Your task to perform on an android device: Open my contact list Image 0: 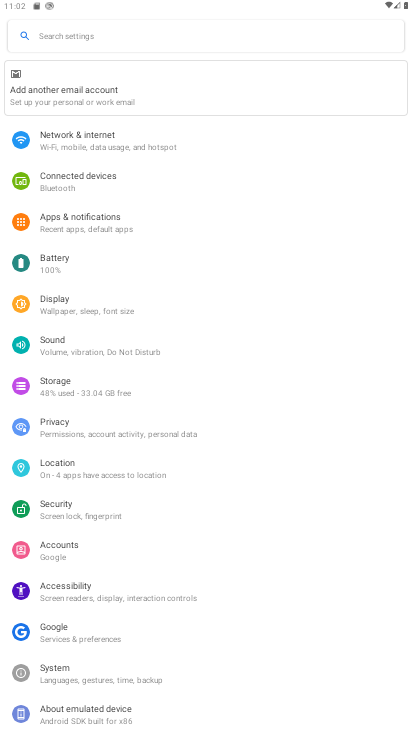
Step 0: press home button
Your task to perform on an android device: Open my contact list Image 1: 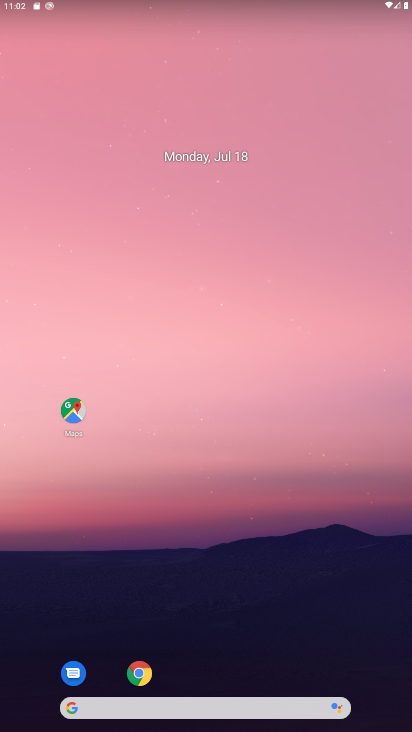
Step 1: drag from (198, 618) to (198, 197)
Your task to perform on an android device: Open my contact list Image 2: 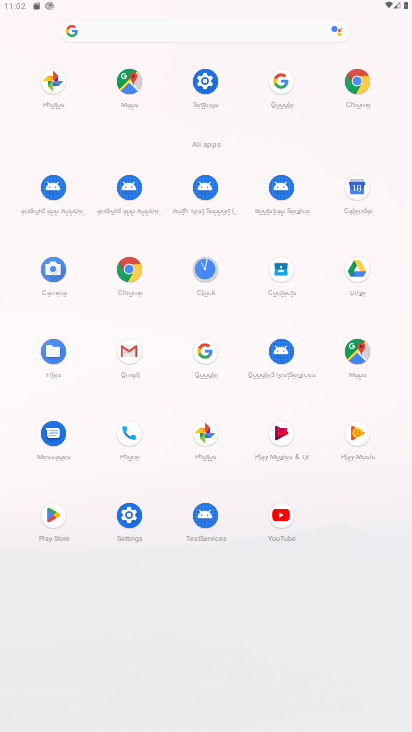
Step 2: click (279, 286)
Your task to perform on an android device: Open my contact list Image 3: 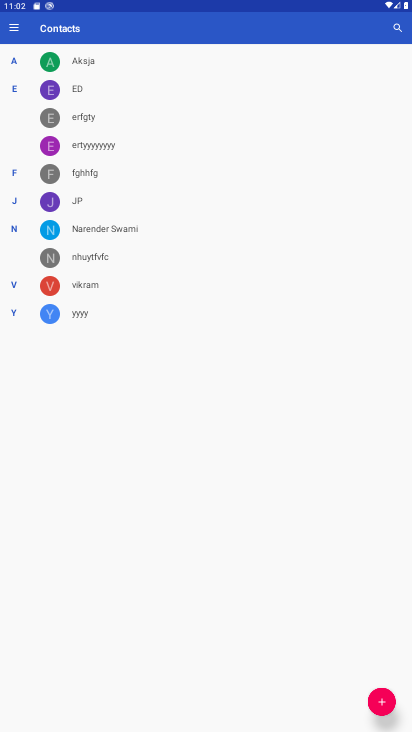
Step 3: task complete